Your task to perform on an android device: Open Android settings Image 0: 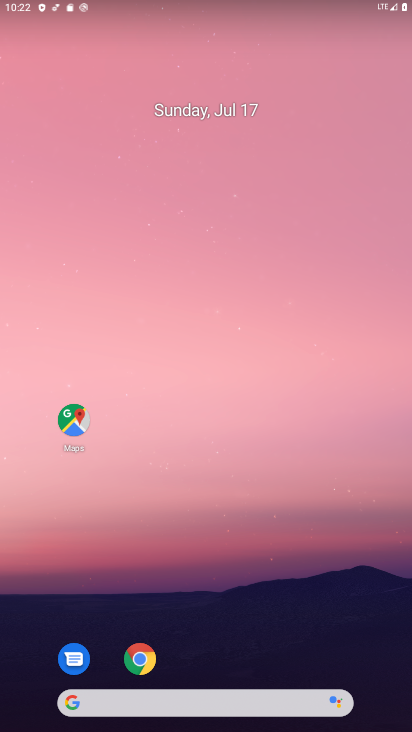
Step 0: drag from (214, 633) to (248, 158)
Your task to perform on an android device: Open Android settings Image 1: 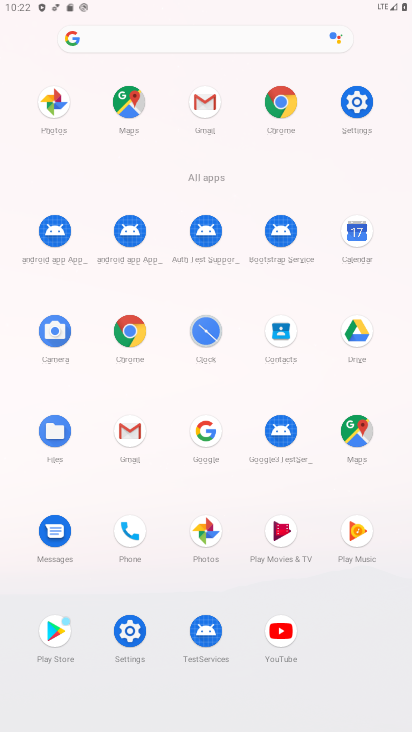
Step 1: click (125, 637)
Your task to perform on an android device: Open Android settings Image 2: 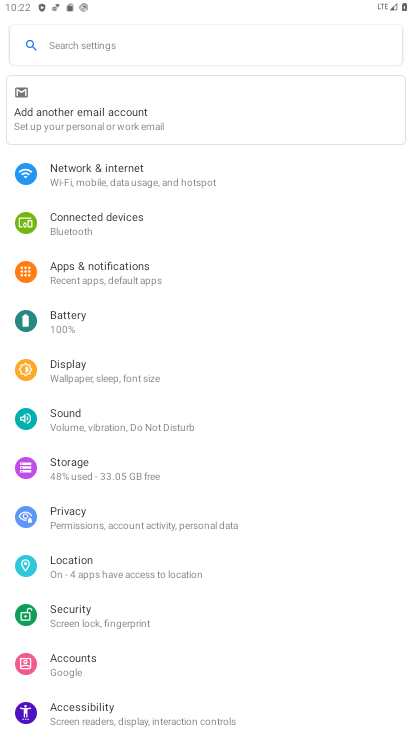
Step 2: task complete